Your task to perform on an android device: toggle improve location accuracy Image 0: 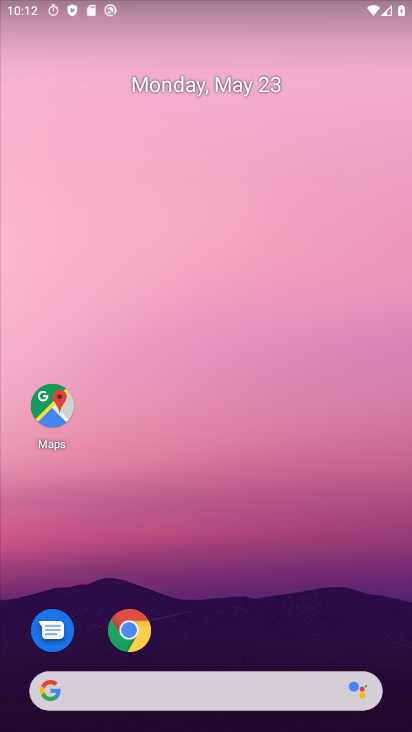
Step 0: drag from (312, 661) to (359, 11)
Your task to perform on an android device: toggle improve location accuracy Image 1: 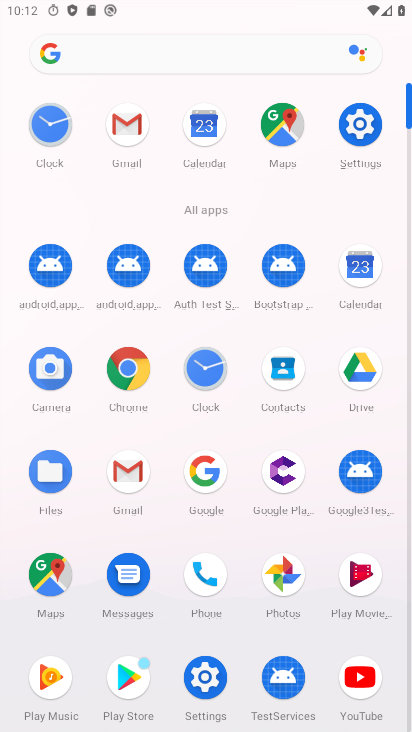
Step 1: click (358, 125)
Your task to perform on an android device: toggle improve location accuracy Image 2: 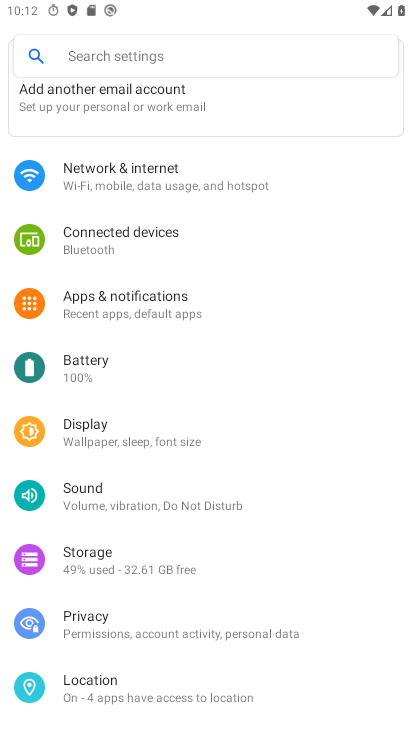
Step 2: click (76, 685)
Your task to perform on an android device: toggle improve location accuracy Image 3: 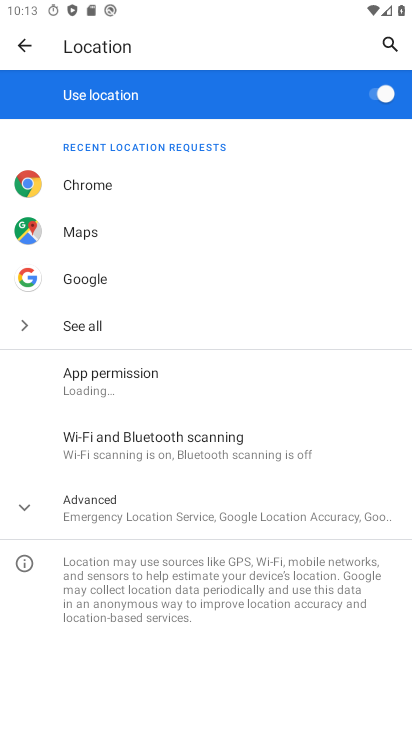
Step 3: click (26, 513)
Your task to perform on an android device: toggle improve location accuracy Image 4: 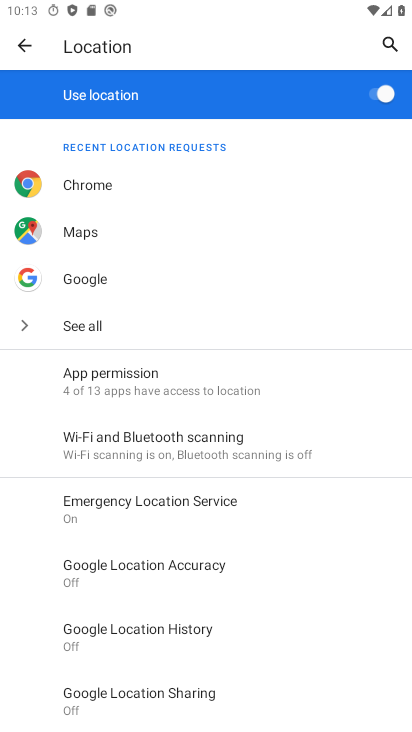
Step 4: click (126, 572)
Your task to perform on an android device: toggle improve location accuracy Image 5: 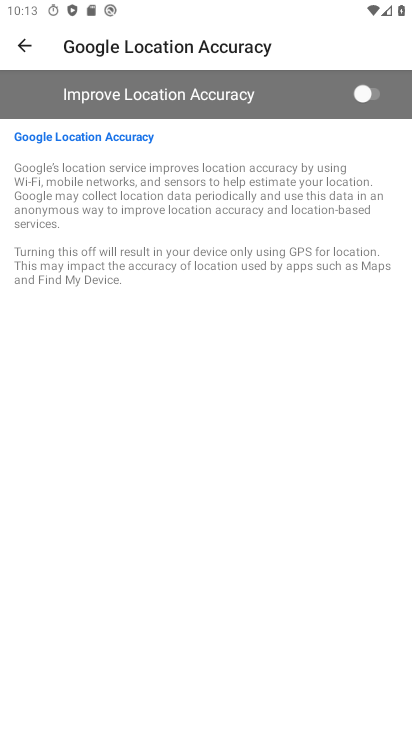
Step 5: click (369, 103)
Your task to perform on an android device: toggle improve location accuracy Image 6: 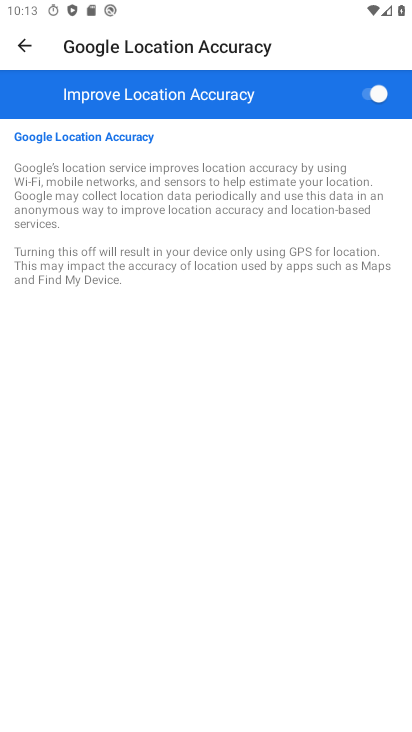
Step 6: task complete